Your task to perform on an android device: check storage Image 0: 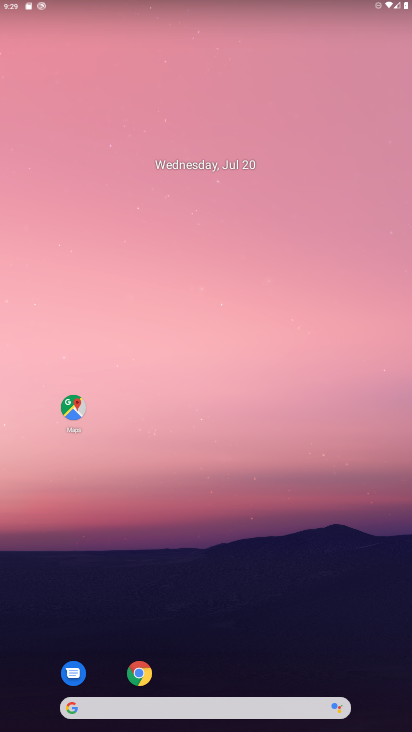
Step 0: drag from (208, 660) to (355, 25)
Your task to perform on an android device: check storage Image 1: 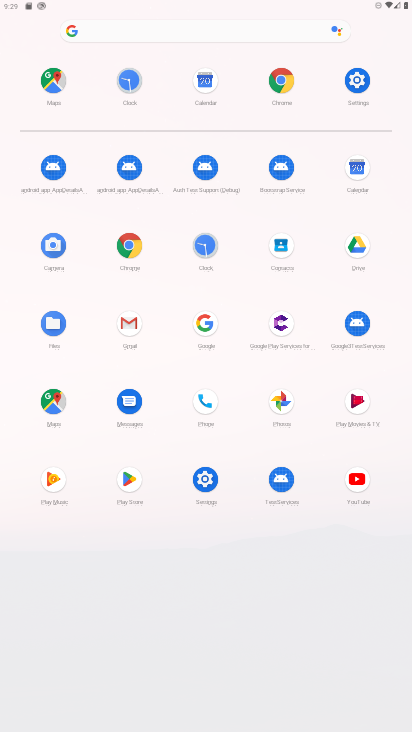
Step 1: click (202, 483)
Your task to perform on an android device: check storage Image 2: 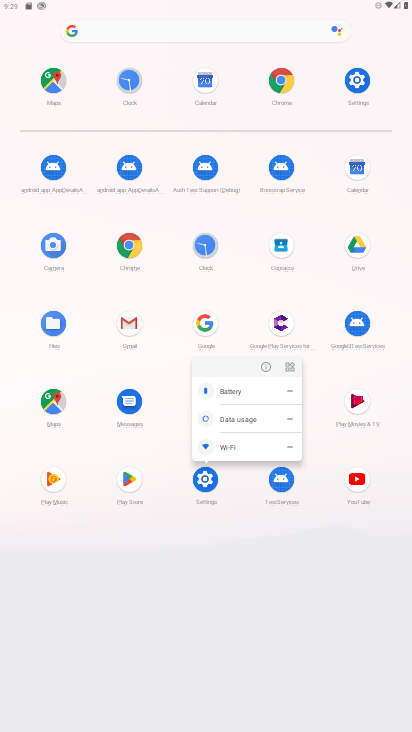
Step 2: click (266, 369)
Your task to perform on an android device: check storage Image 3: 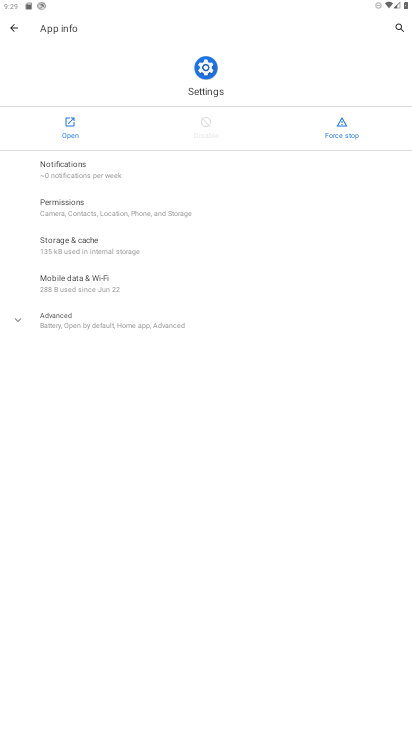
Step 3: click (65, 129)
Your task to perform on an android device: check storage Image 4: 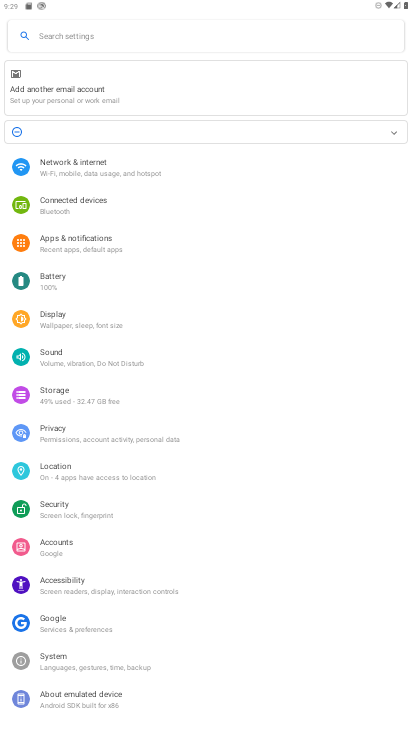
Step 4: click (73, 392)
Your task to perform on an android device: check storage Image 5: 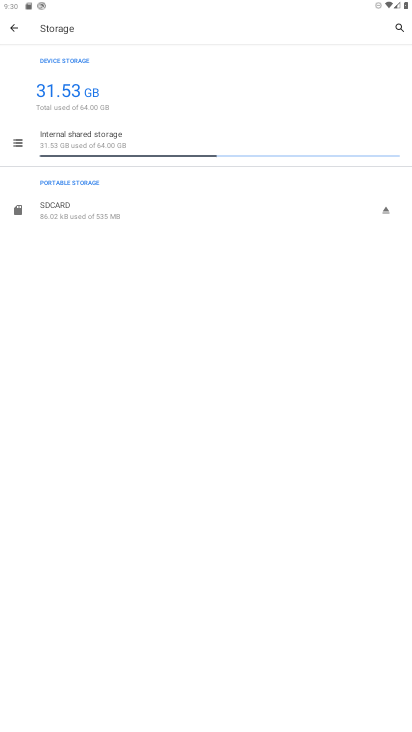
Step 5: task complete